Your task to perform on an android device: open sync settings in chrome Image 0: 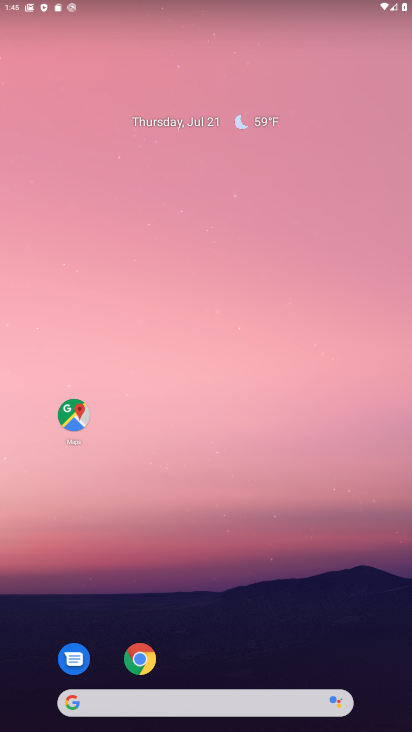
Step 0: drag from (346, 596) to (220, 88)
Your task to perform on an android device: open sync settings in chrome Image 1: 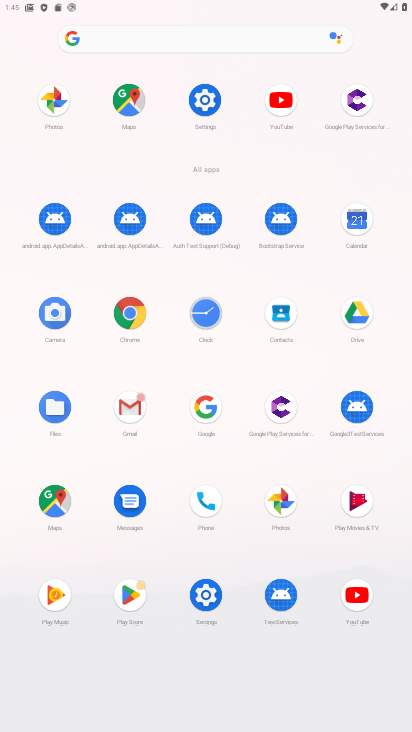
Step 1: click (127, 312)
Your task to perform on an android device: open sync settings in chrome Image 2: 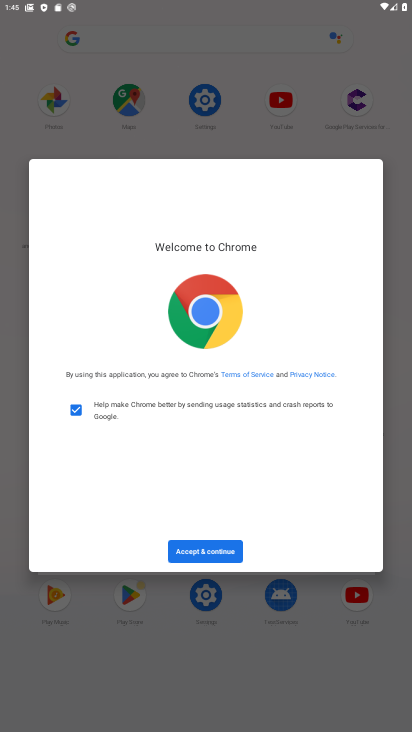
Step 2: click (217, 547)
Your task to perform on an android device: open sync settings in chrome Image 3: 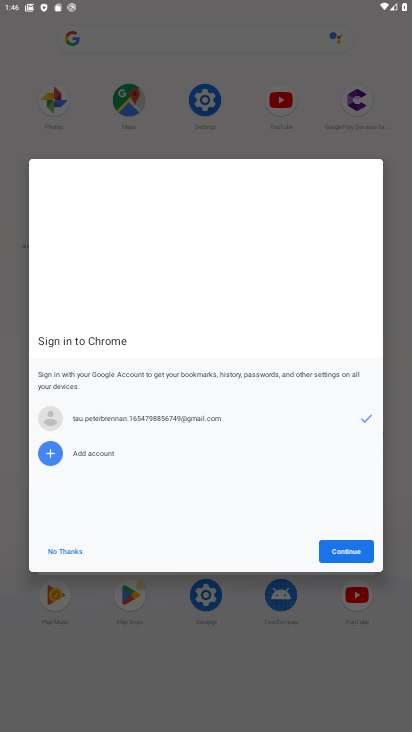
Step 3: click (354, 559)
Your task to perform on an android device: open sync settings in chrome Image 4: 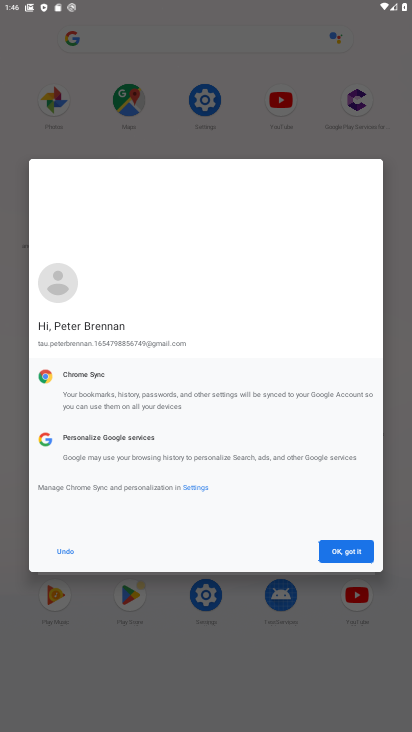
Step 4: click (352, 551)
Your task to perform on an android device: open sync settings in chrome Image 5: 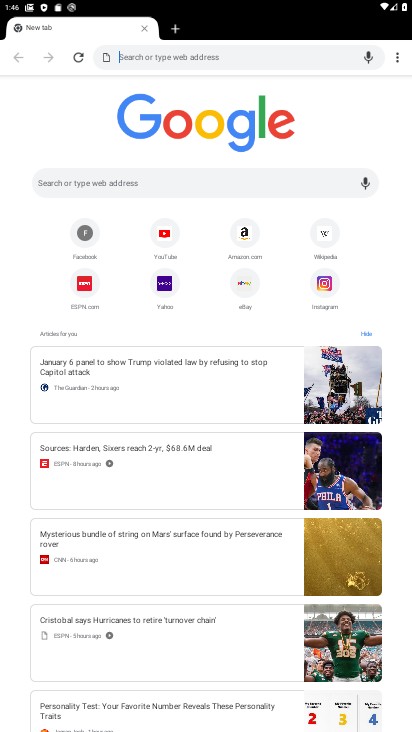
Step 5: drag from (397, 54) to (269, 267)
Your task to perform on an android device: open sync settings in chrome Image 6: 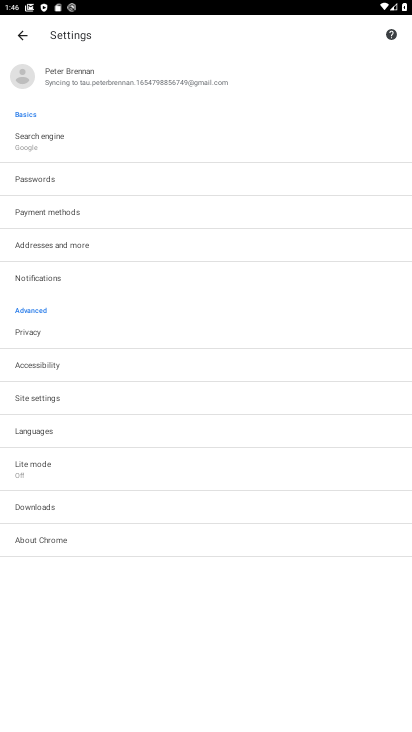
Step 6: click (73, 70)
Your task to perform on an android device: open sync settings in chrome Image 7: 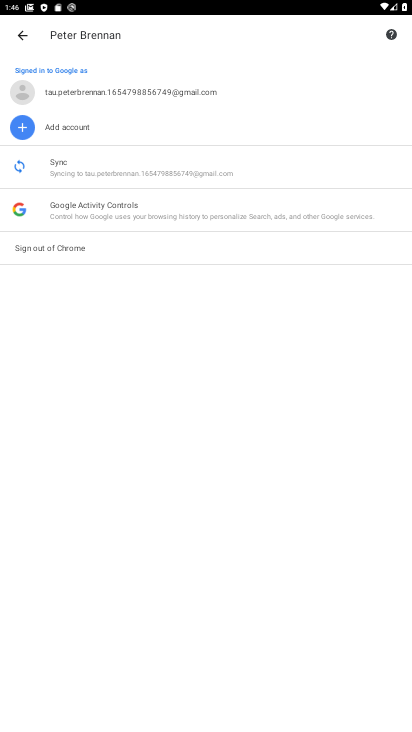
Step 7: click (84, 147)
Your task to perform on an android device: open sync settings in chrome Image 8: 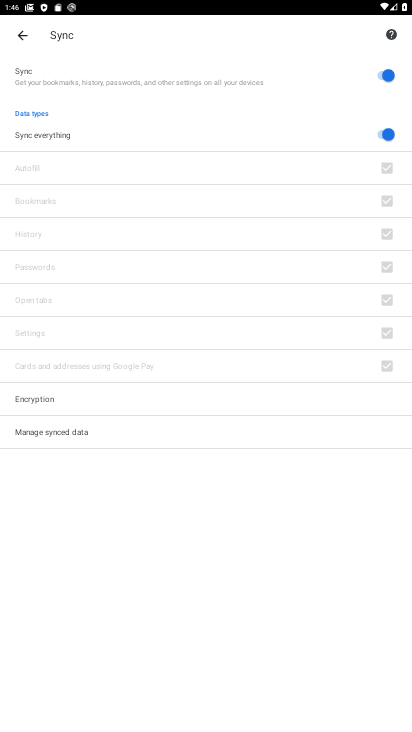
Step 8: task complete